Your task to perform on an android device: Set the phone to "Do not disturb". Image 0: 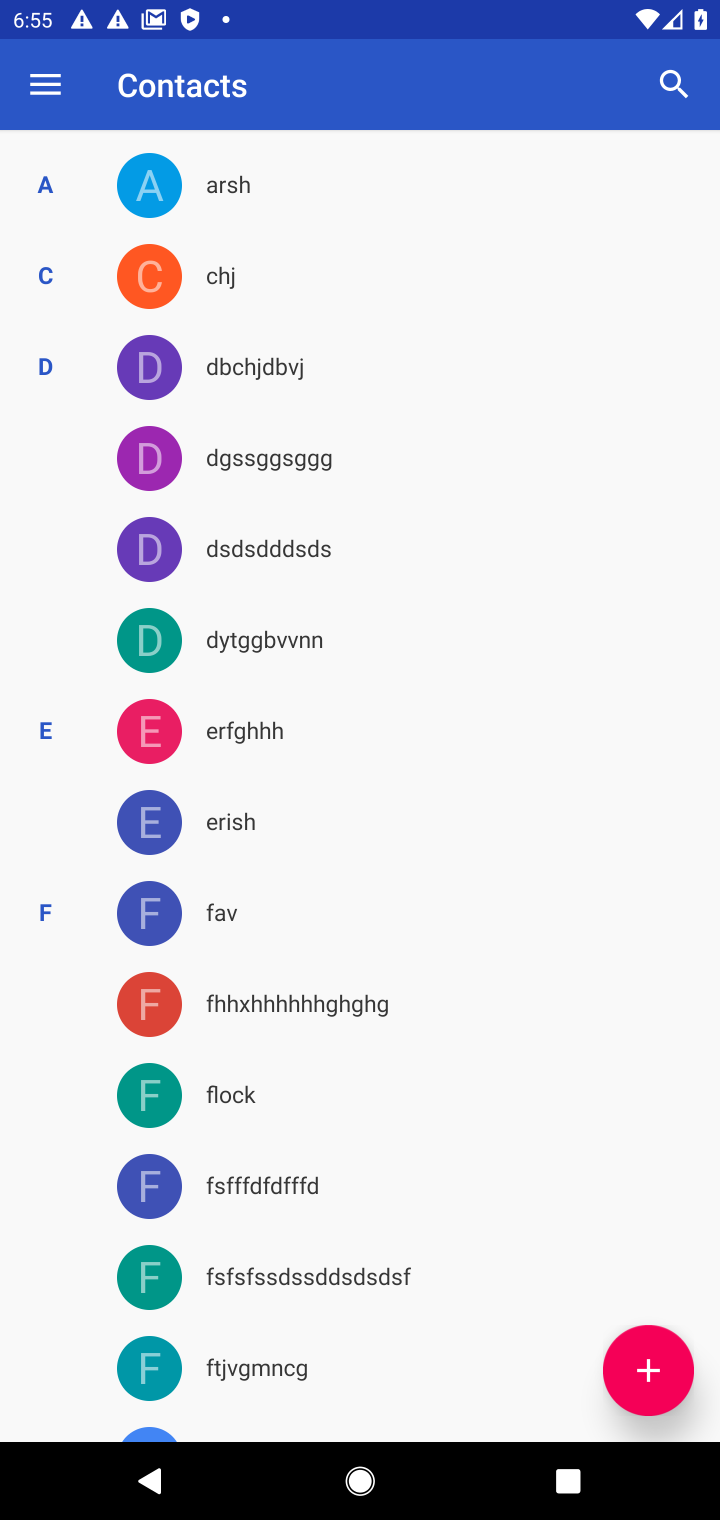
Step 0: press home button
Your task to perform on an android device: Set the phone to "Do not disturb". Image 1: 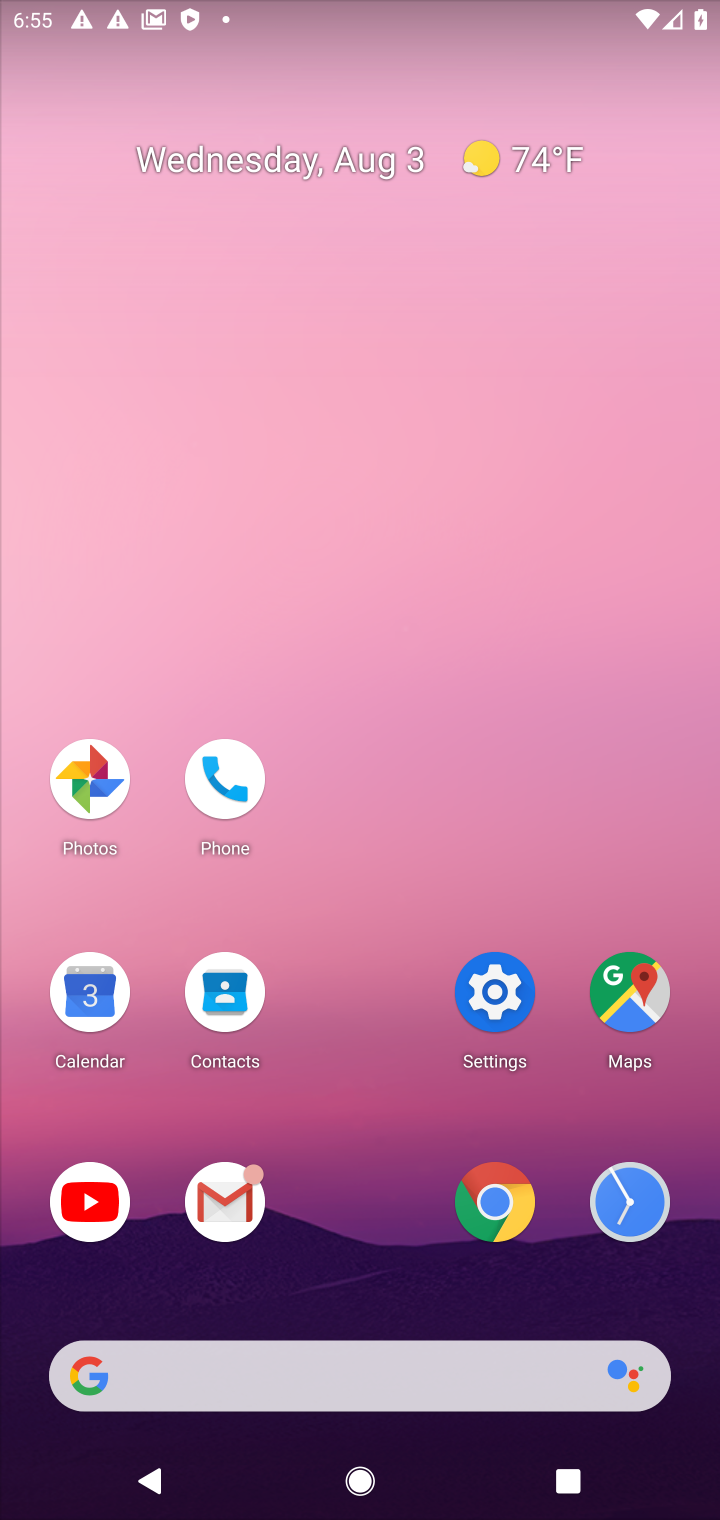
Step 1: click (490, 1001)
Your task to perform on an android device: Set the phone to "Do not disturb". Image 2: 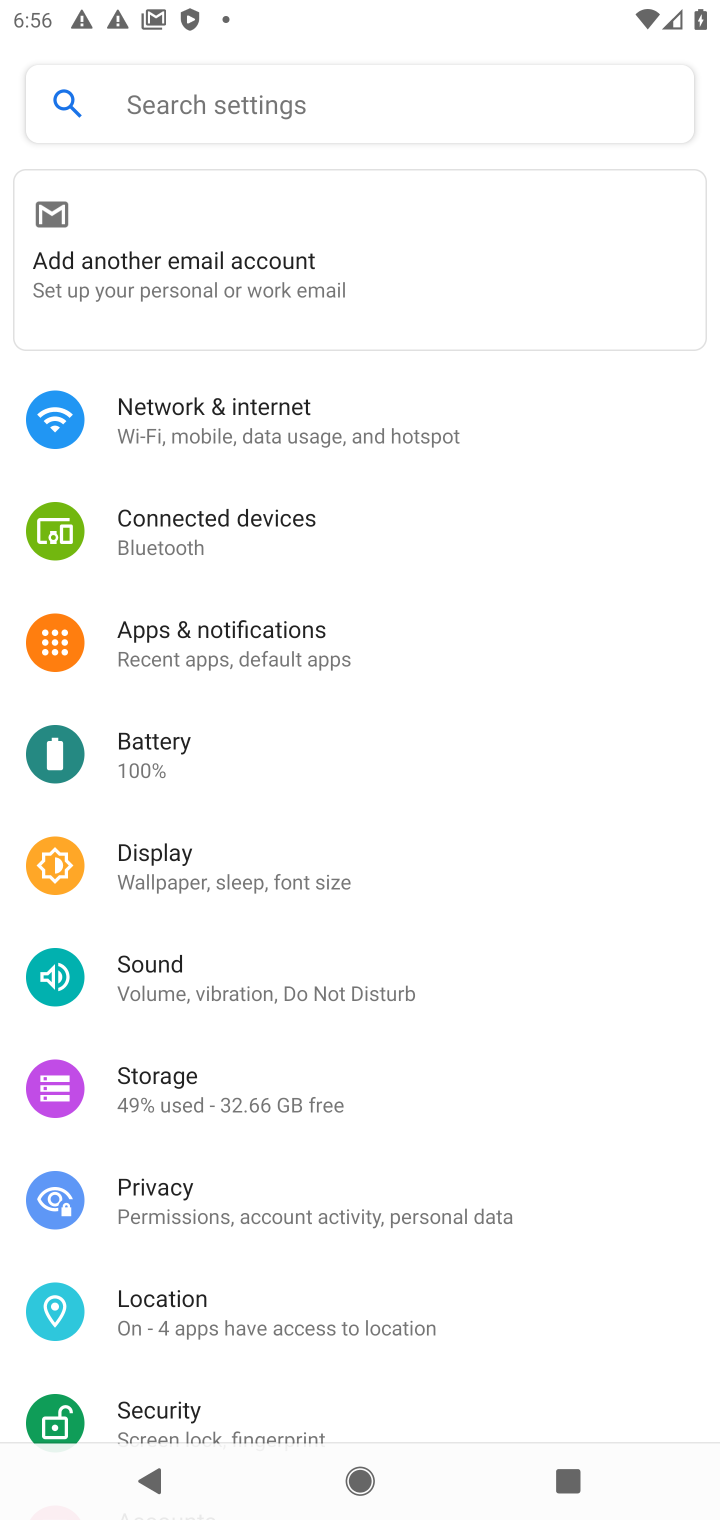
Step 2: click (156, 973)
Your task to perform on an android device: Set the phone to "Do not disturb". Image 3: 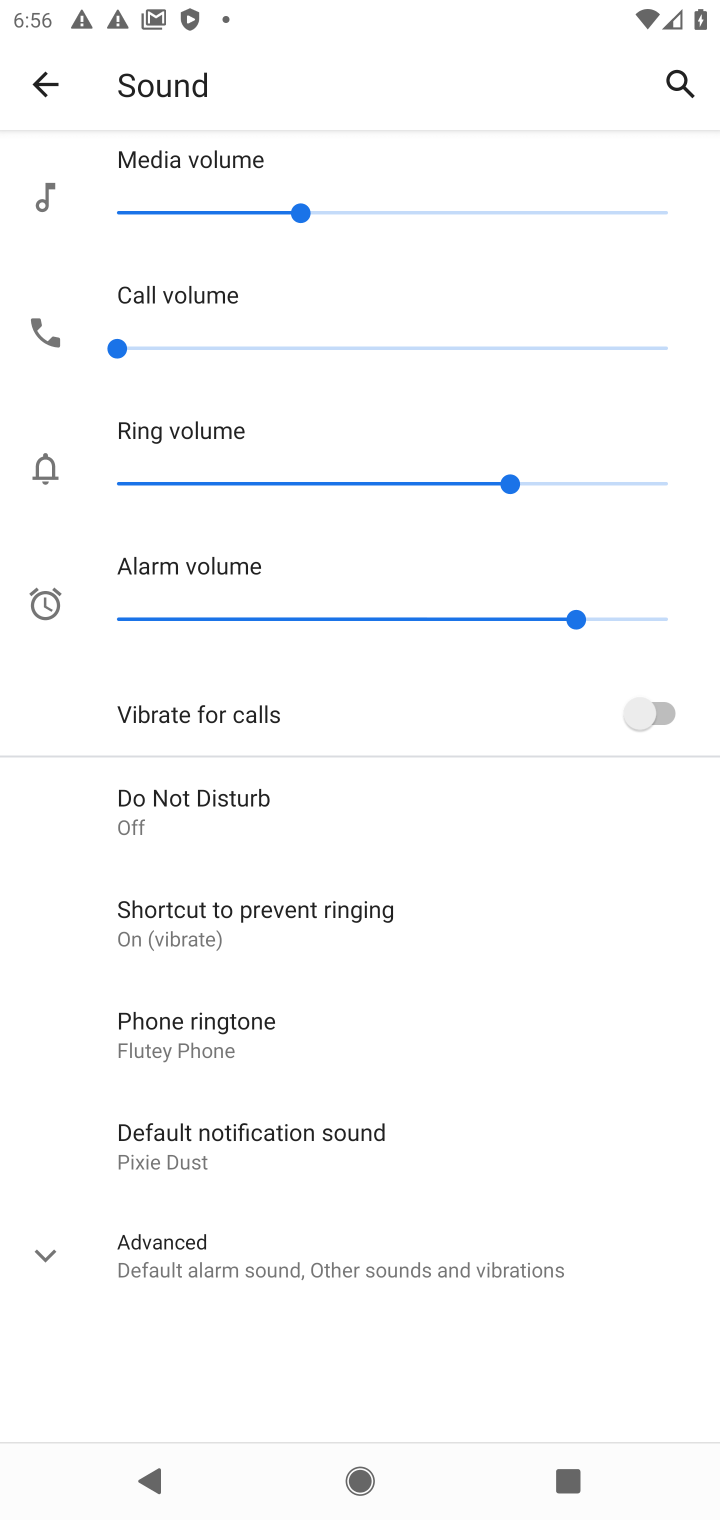
Step 3: click (166, 805)
Your task to perform on an android device: Set the phone to "Do not disturb". Image 4: 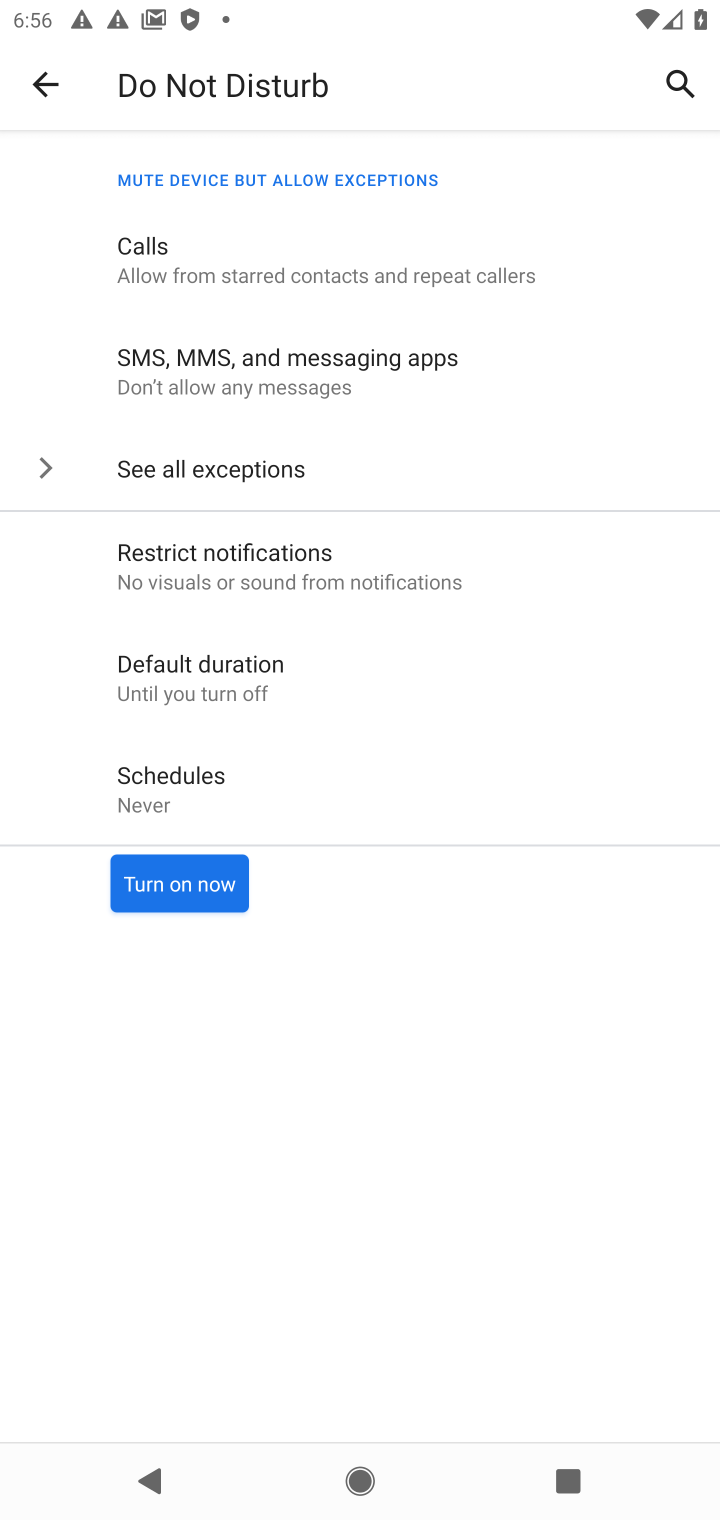
Step 4: click (174, 882)
Your task to perform on an android device: Set the phone to "Do not disturb". Image 5: 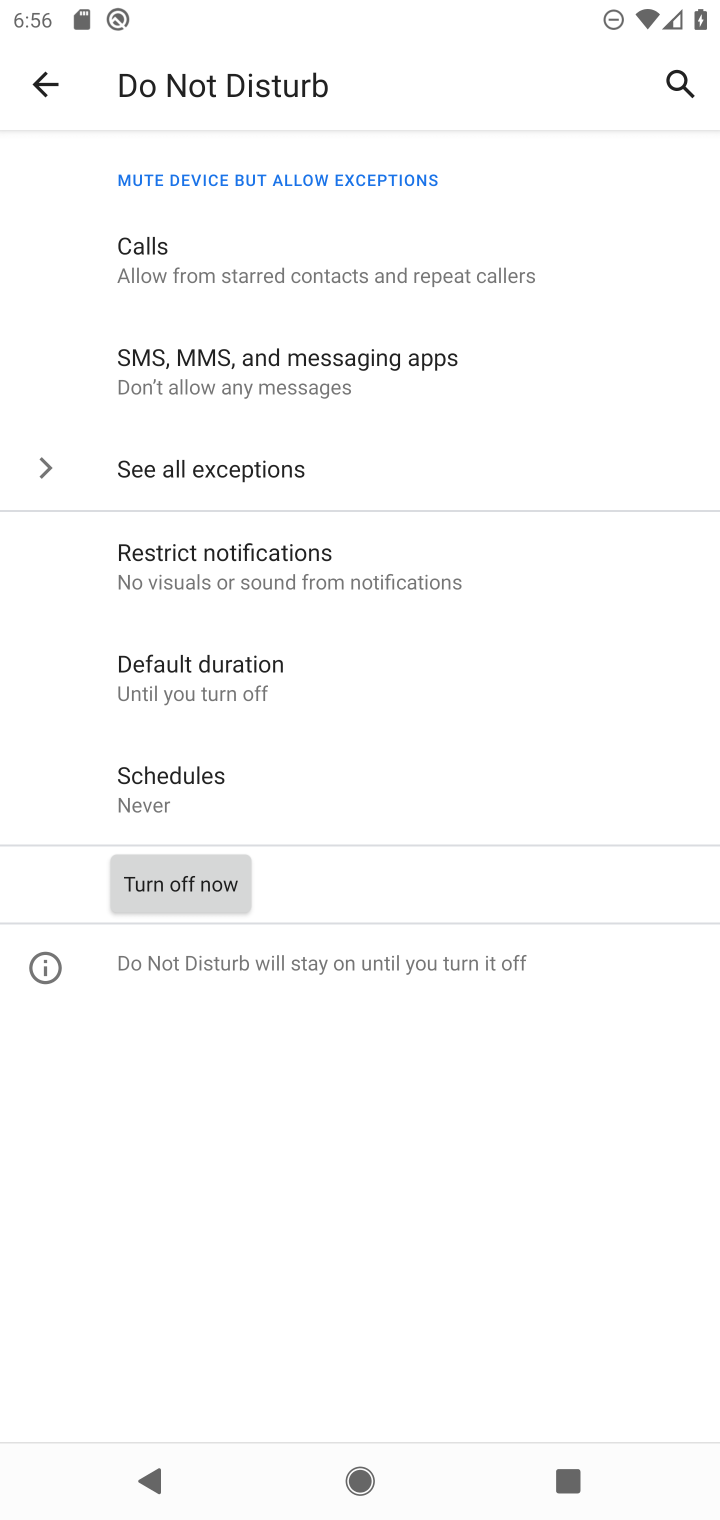
Step 5: task complete